Your task to perform on an android device: Open accessibility settings Image 0: 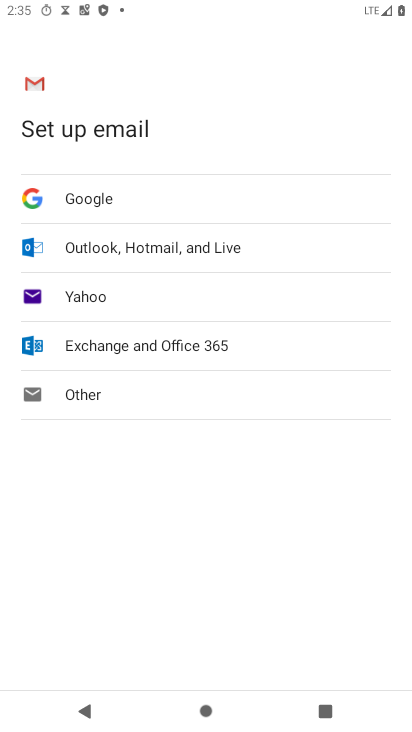
Step 0: press home button
Your task to perform on an android device: Open accessibility settings Image 1: 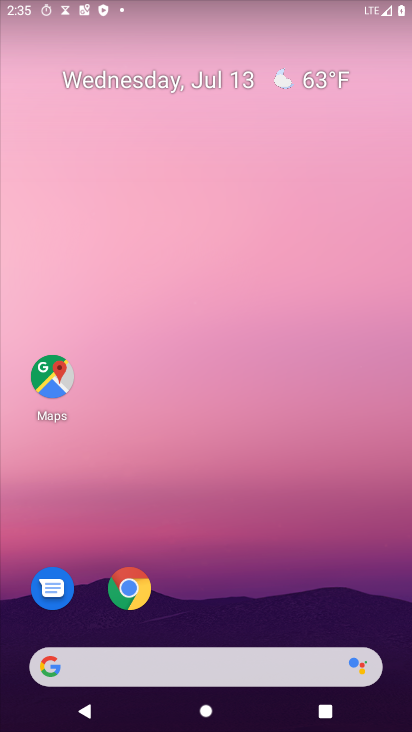
Step 1: drag from (194, 657) to (207, 146)
Your task to perform on an android device: Open accessibility settings Image 2: 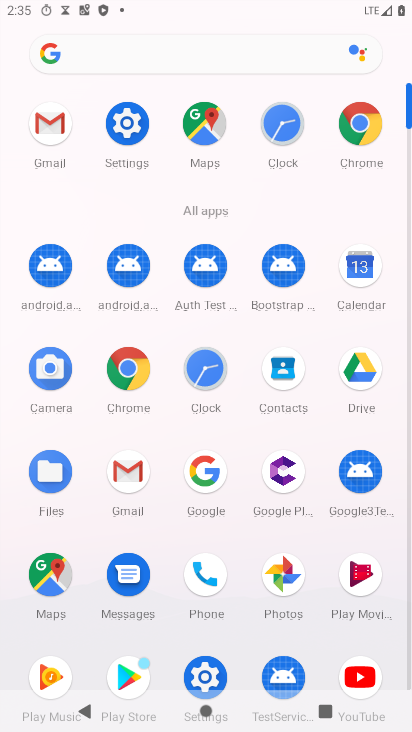
Step 2: click (206, 662)
Your task to perform on an android device: Open accessibility settings Image 3: 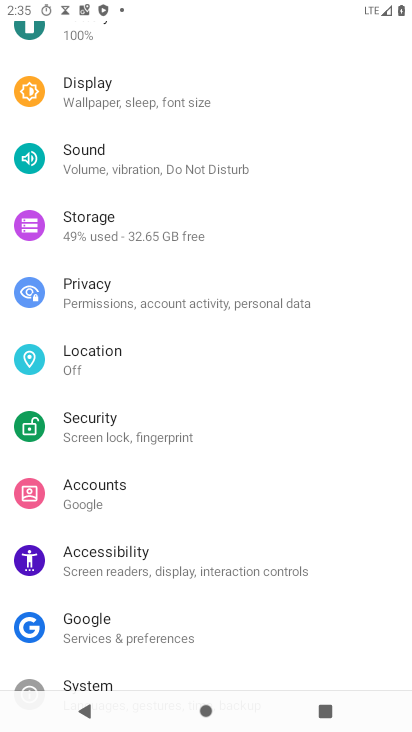
Step 3: click (126, 562)
Your task to perform on an android device: Open accessibility settings Image 4: 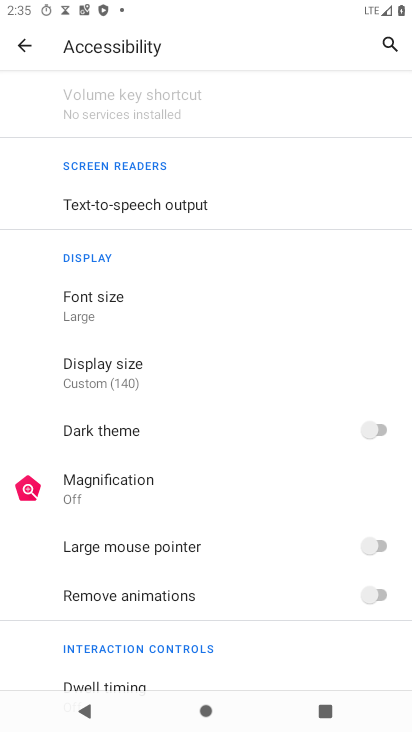
Step 4: task complete